Your task to perform on an android device: Open Google Chrome Image 0: 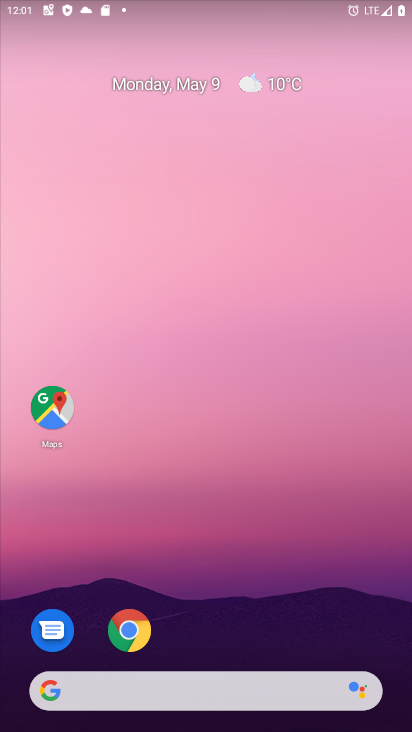
Step 0: drag from (362, 635) to (166, 2)
Your task to perform on an android device: Open Google Chrome Image 1: 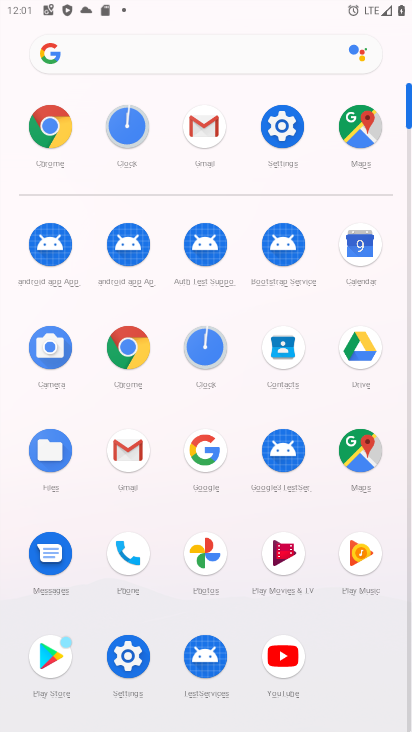
Step 1: click (212, 449)
Your task to perform on an android device: Open Google Chrome Image 2: 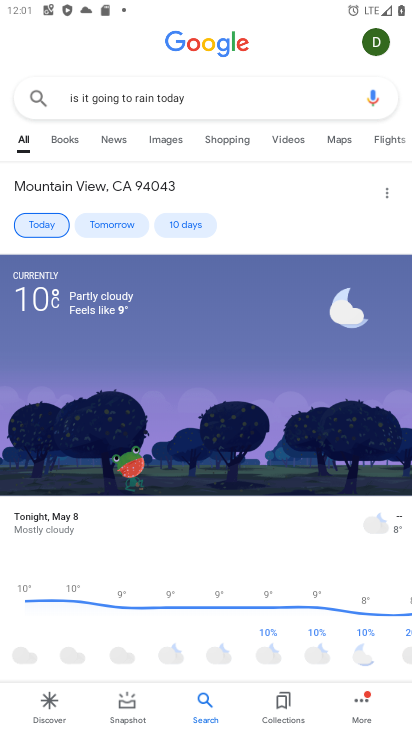
Step 2: press back button
Your task to perform on an android device: Open Google Chrome Image 3: 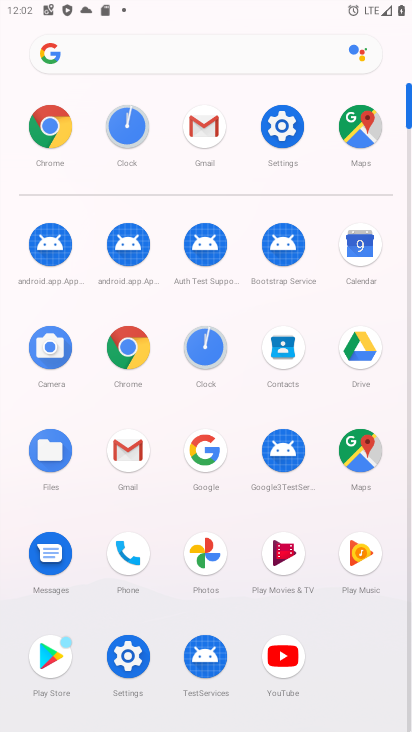
Step 3: click (138, 362)
Your task to perform on an android device: Open Google Chrome Image 4: 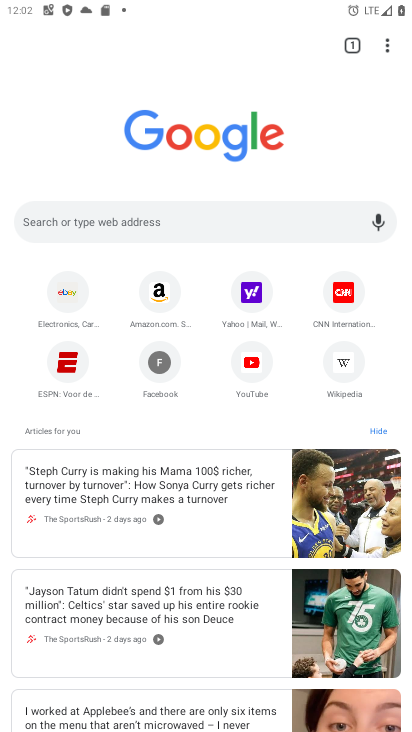
Step 4: task complete